Your task to perform on an android device: Show the shopping cart on costco.com. Search for "lenovo thinkpad" on costco.com, select the first entry, and add it to the cart. Image 0: 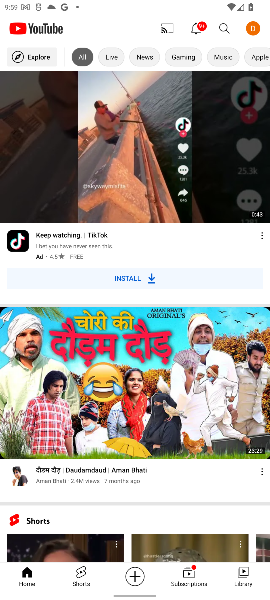
Step 0: press home button
Your task to perform on an android device: Show the shopping cart on costco.com. Search for "lenovo thinkpad" on costco.com, select the first entry, and add it to the cart. Image 1: 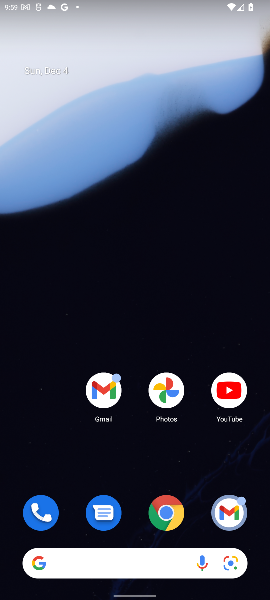
Step 1: click (165, 516)
Your task to perform on an android device: Show the shopping cart on costco.com. Search for "lenovo thinkpad" on costco.com, select the first entry, and add it to the cart. Image 2: 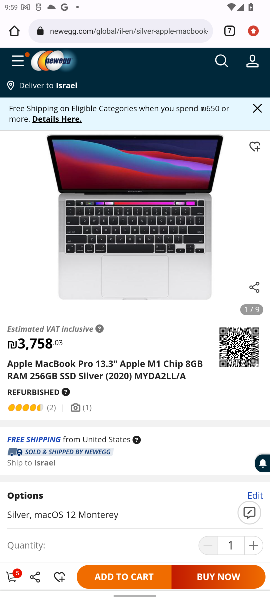
Step 2: click (230, 25)
Your task to perform on an android device: Show the shopping cart on costco.com. Search for "lenovo thinkpad" on costco.com, select the first entry, and add it to the cart. Image 3: 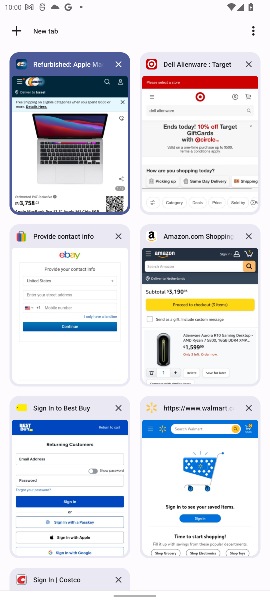
Step 3: click (21, 583)
Your task to perform on an android device: Show the shopping cart on costco.com. Search for "lenovo thinkpad" on costco.com, select the first entry, and add it to the cart. Image 4: 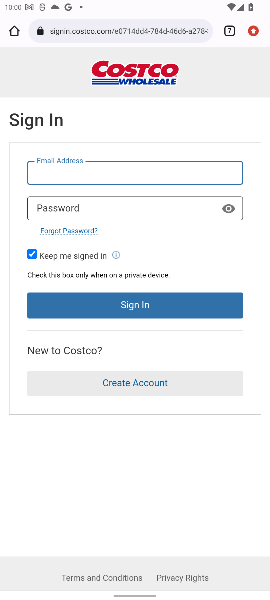
Step 4: press back button
Your task to perform on an android device: Show the shopping cart on costco.com. Search for "lenovo thinkpad" on costco.com, select the first entry, and add it to the cart. Image 5: 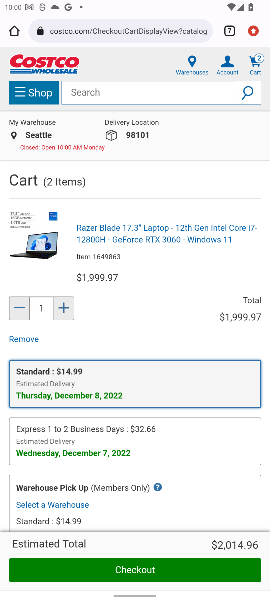
Step 5: click (91, 93)
Your task to perform on an android device: Show the shopping cart on costco.com. Search for "lenovo thinkpad" on costco.com, select the first entry, and add it to the cart. Image 6: 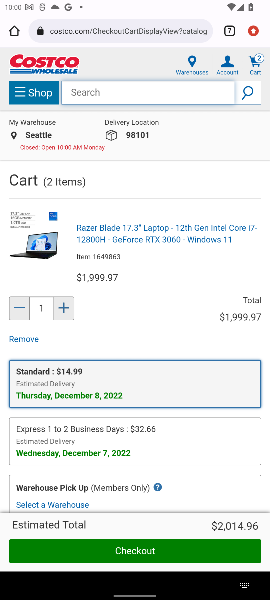
Step 6: type "lenovo thinkpad"
Your task to perform on an android device: Show the shopping cart on costco.com. Search for "lenovo thinkpad" on costco.com, select the first entry, and add it to the cart. Image 7: 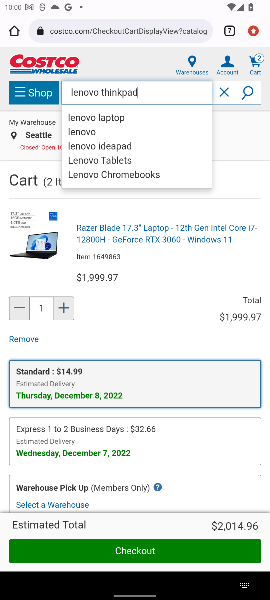
Step 7: click (240, 91)
Your task to perform on an android device: Show the shopping cart on costco.com. Search for "lenovo thinkpad" on costco.com, select the first entry, and add it to the cart. Image 8: 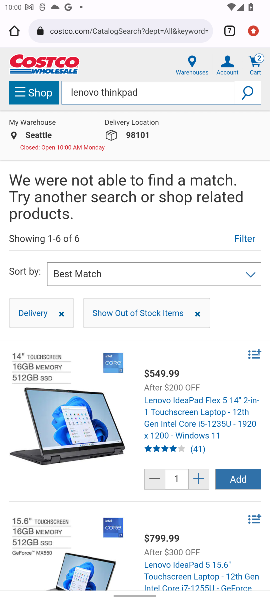
Step 8: task complete